Your task to perform on an android device: Go to eBay Image 0: 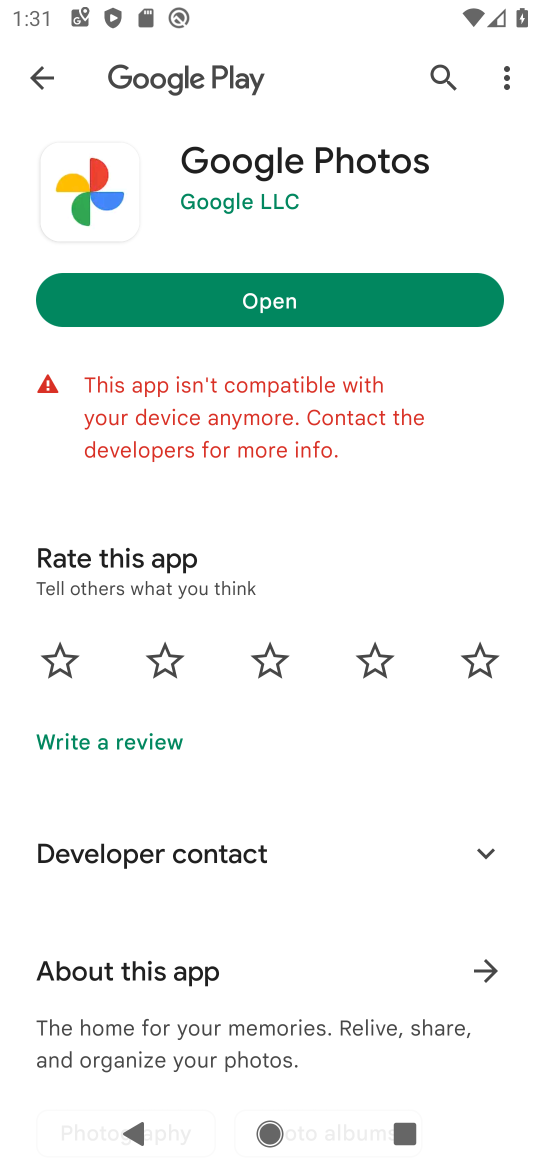
Step 0: press home button
Your task to perform on an android device: Go to eBay Image 1: 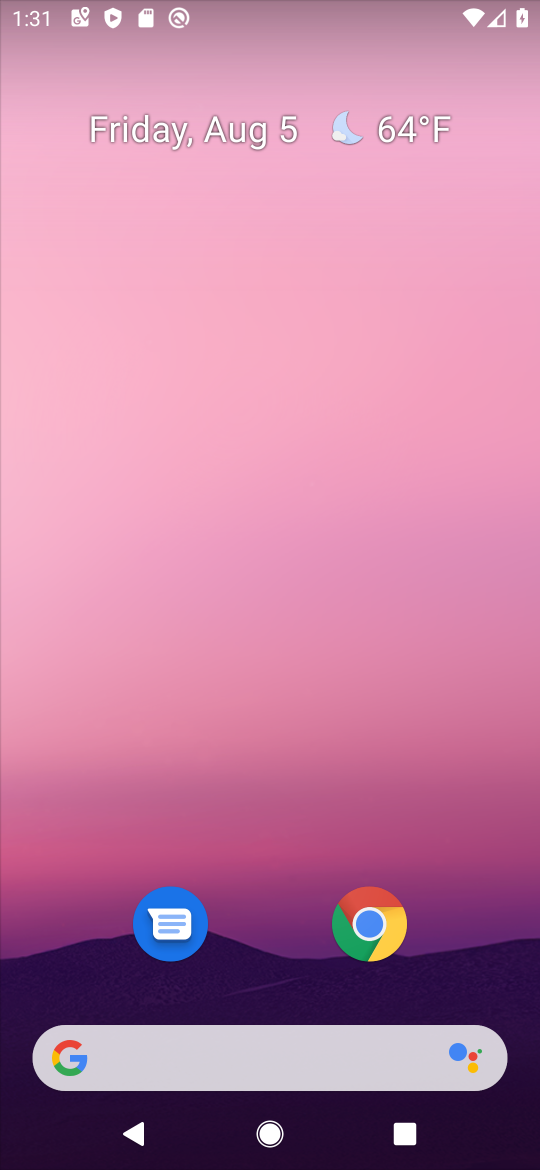
Step 1: click (370, 922)
Your task to perform on an android device: Go to eBay Image 2: 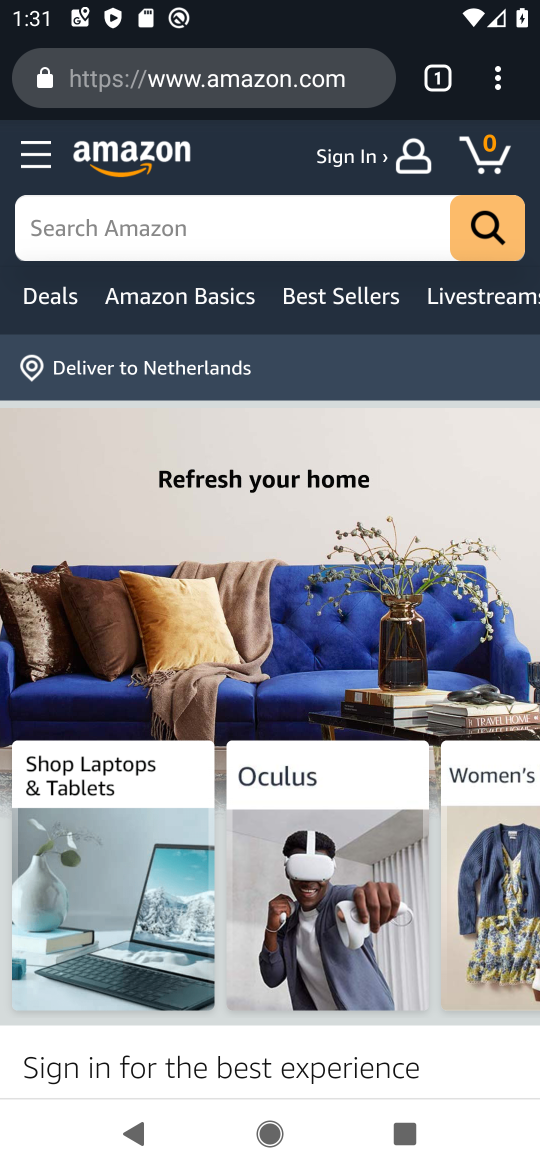
Step 2: click (344, 67)
Your task to perform on an android device: Go to eBay Image 3: 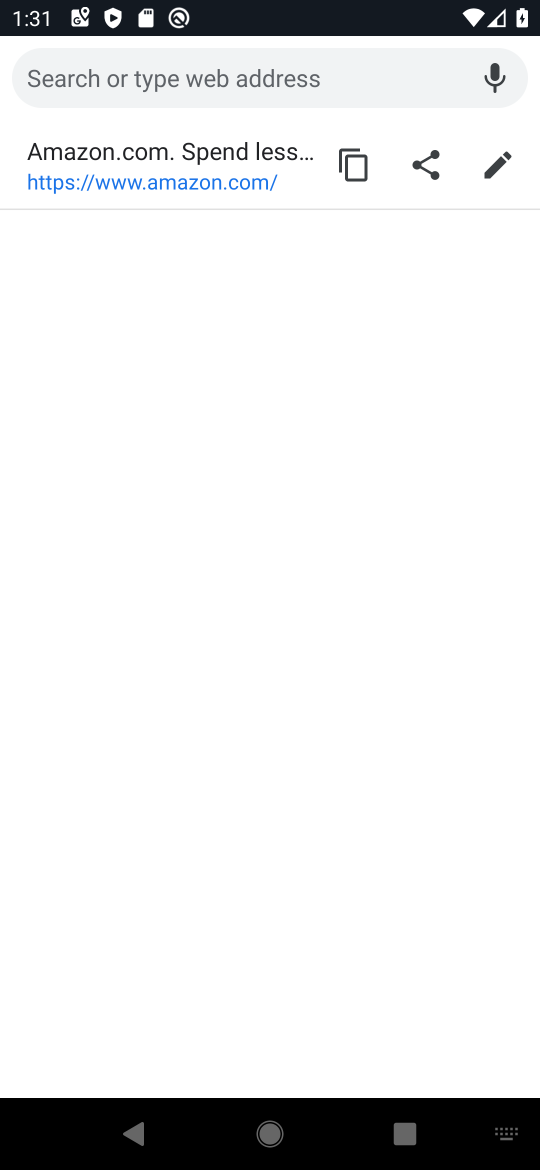
Step 3: type "eBay"
Your task to perform on an android device: Go to eBay Image 4: 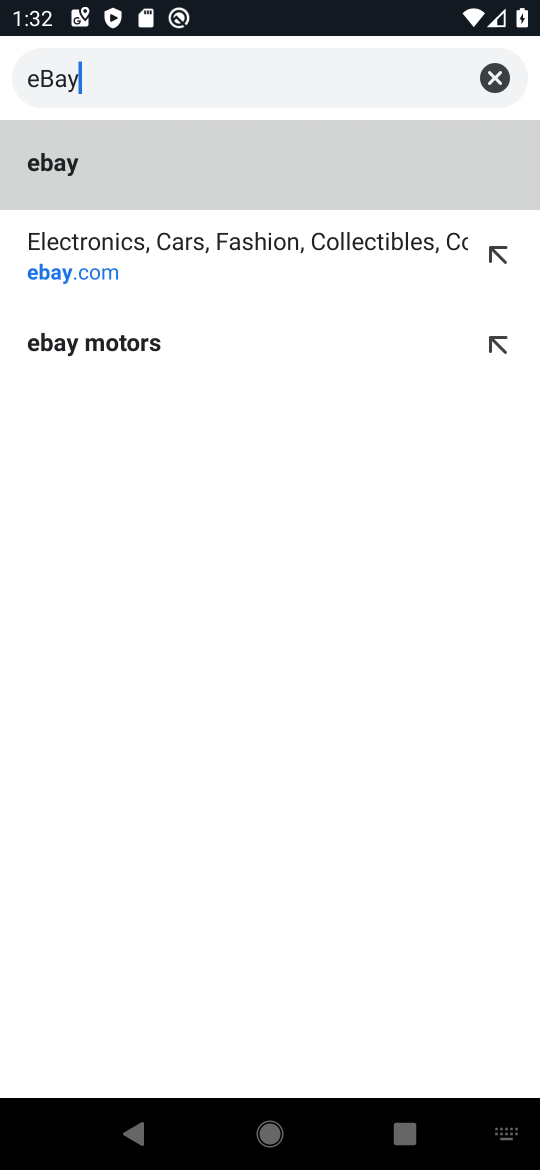
Step 4: click (87, 165)
Your task to perform on an android device: Go to eBay Image 5: 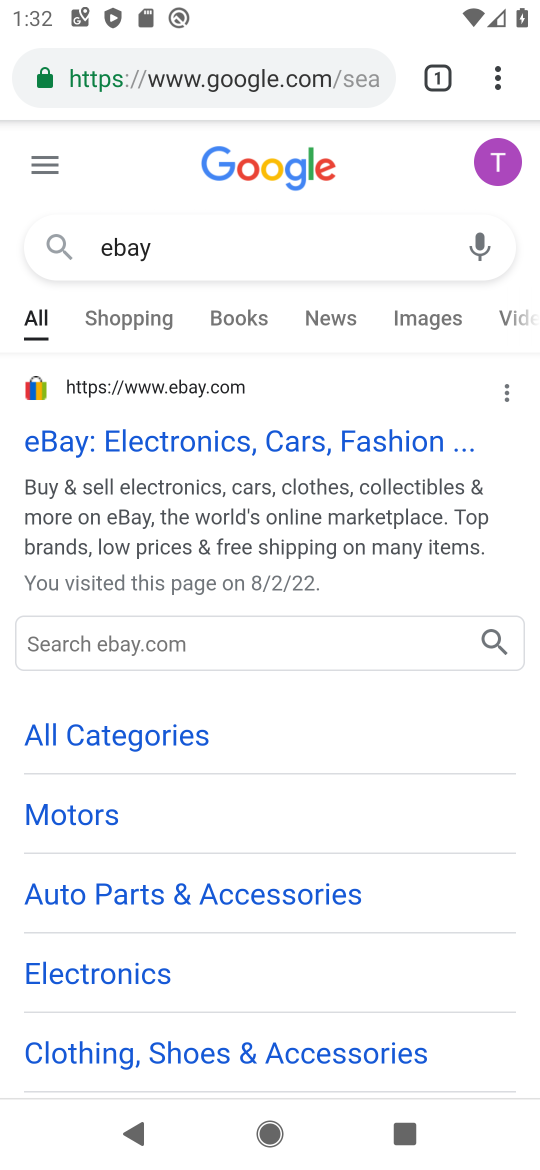
Step 5: click (265, 451)
Your task to perform on an android device: Go to eBay Image 6: 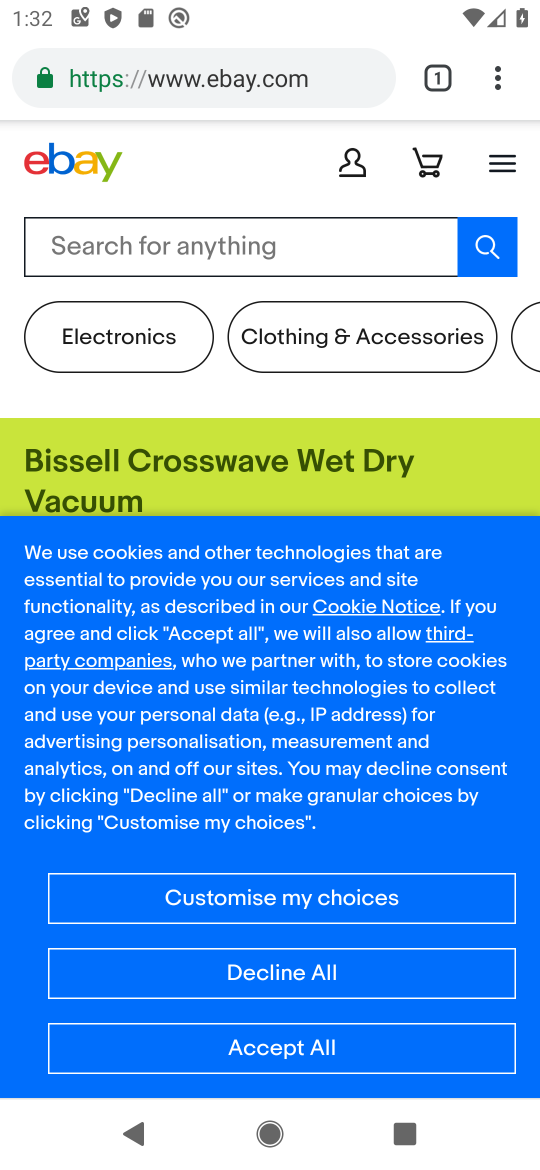
Step 6: task complete